Your task to perform on an android device: empty trash in google photos Image 0: 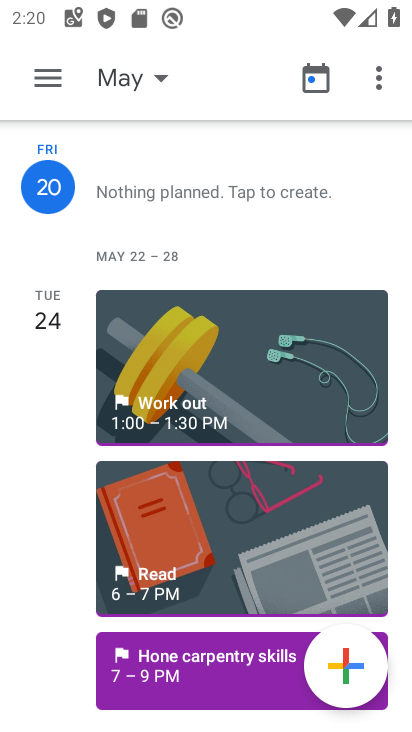
Step 0: press home button
Your task to perform on an android device: empty trash in google photos Image 1: 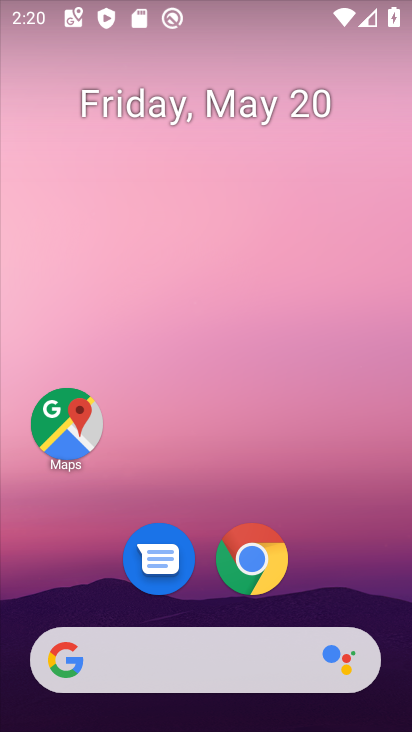
Step 1: drag from (280, 476) to (266, 29)
Your task to perform on an android device: empty trash in google photos Image 2: 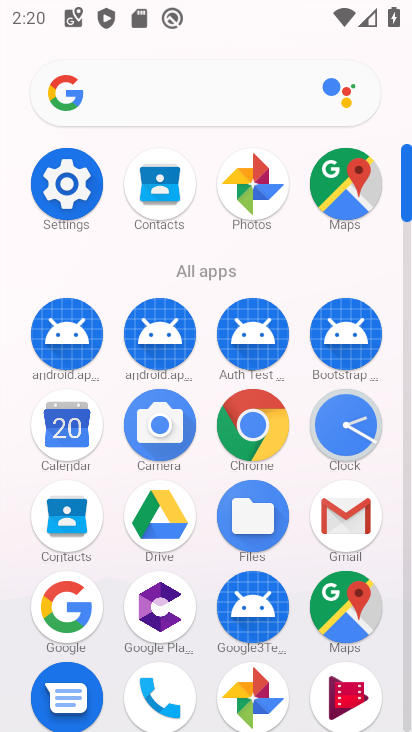
Step 2: click (246, 188)
Your task to perform on an android device: empty trash in google photos Image 3: 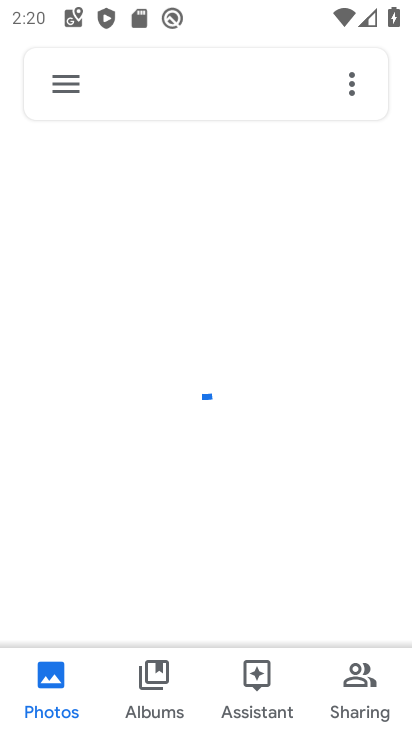
Step 3: click (74, 83)
Your task to perform on an android device: empty trash in google photos Image 4: 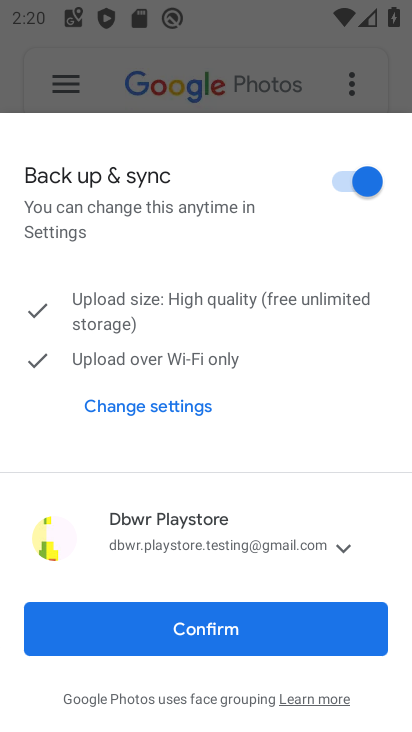
Step 4: click (248, 641)
Your task to perform on an android device: empty trash in google photos Image 5: 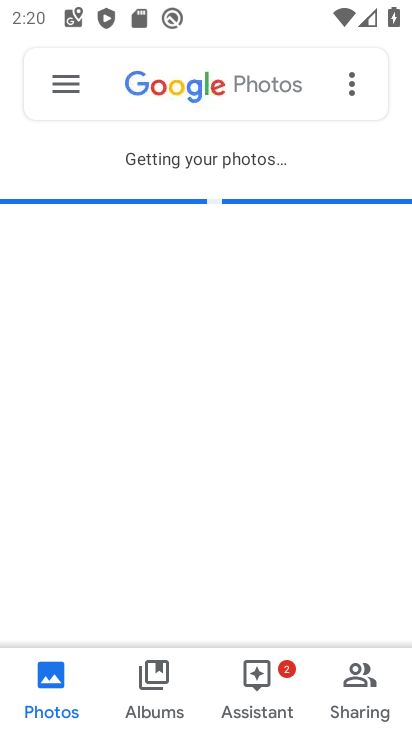
Step 5: click (68, 77)
Your task to perform on an android device: empty trash in google photos Image 6: 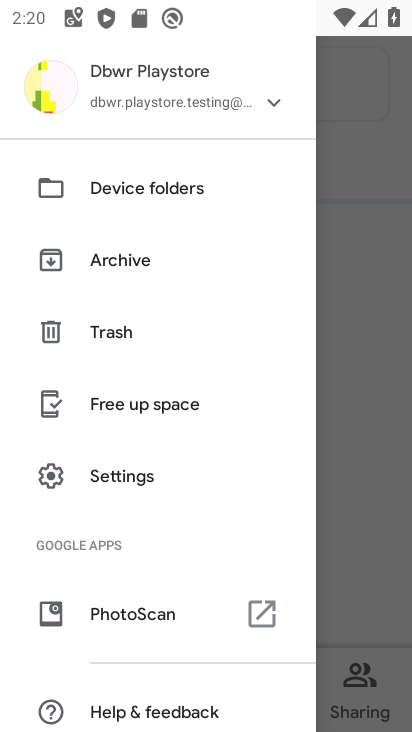
Step 6: click (102, 326)
Your task to perform on an android device: empty trash in google photos Image 7: 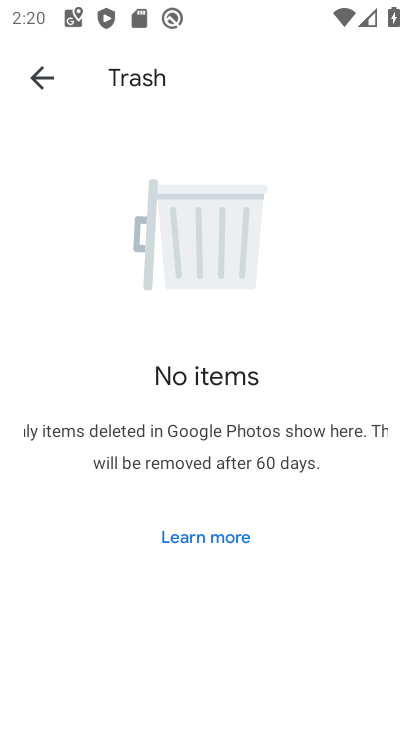
Step 7: task complete